Your task to perform on an android device: turn on priority inbox in the gmail app Image 0: 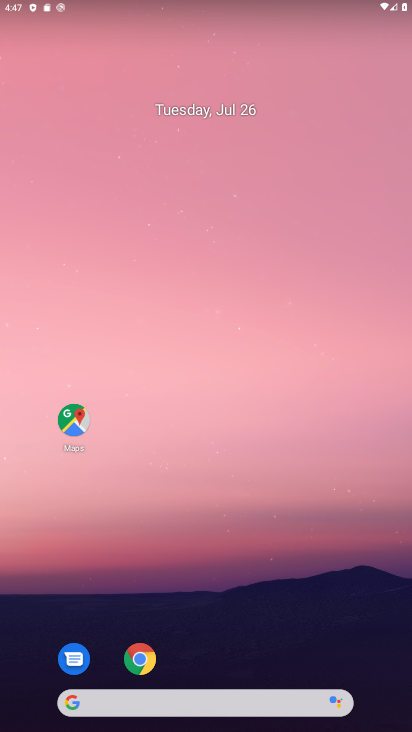
Step 0: drag from (318, 551) to (393, 19)
Your task to perform on an android device: turn on priority inbox in the gmail app Image 1: 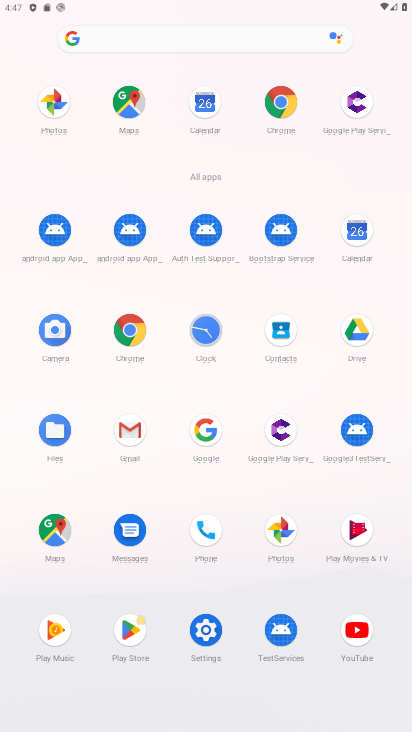
Step 1: click (121, 431)
Your task to perform on an android device: turn on priority inbox in the gmail app Image 2: 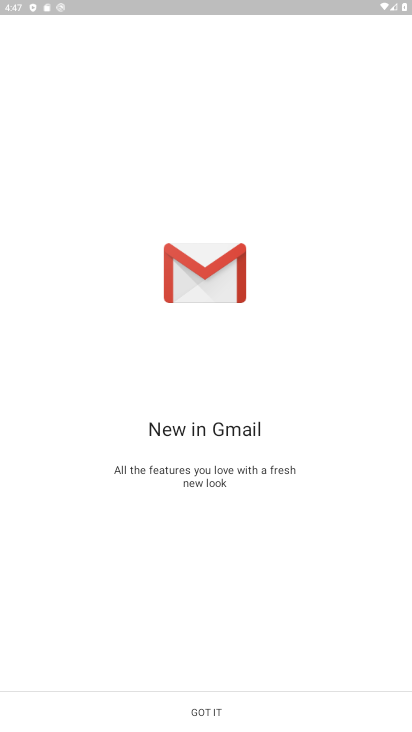
Step 2: click (212, 702)
Your task to perform on an android device: turn on priority inbox in the gmail app Image 3: 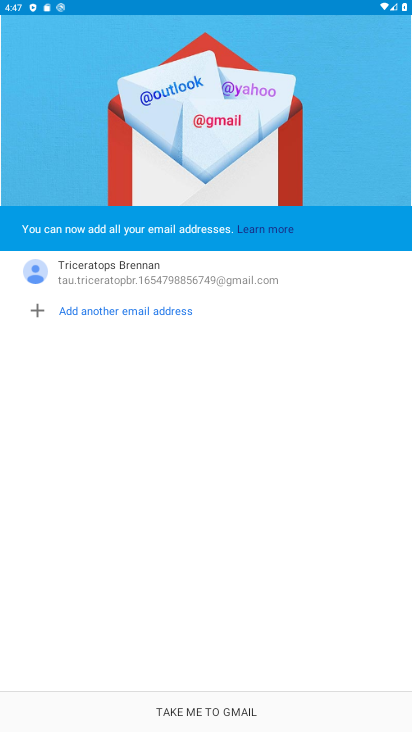
Step 3: click (188, 710)
Your task to perform on an android device: turn on priority inbox in the gmail app Image 4: 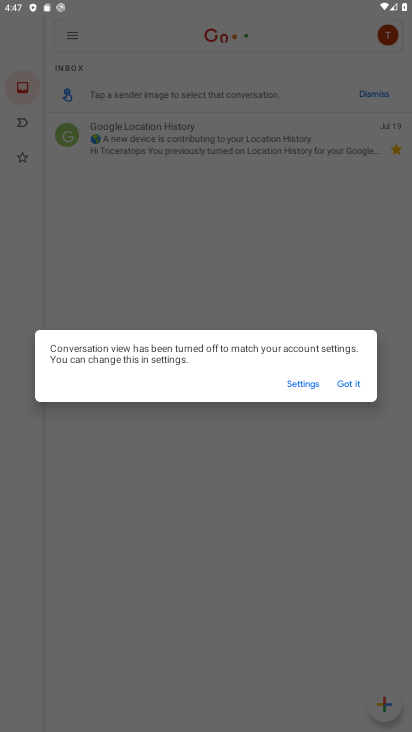
Step 4: click (358, 381)
Your task to perform on an android device: turn on priority inbox in the gmail app Image 5: 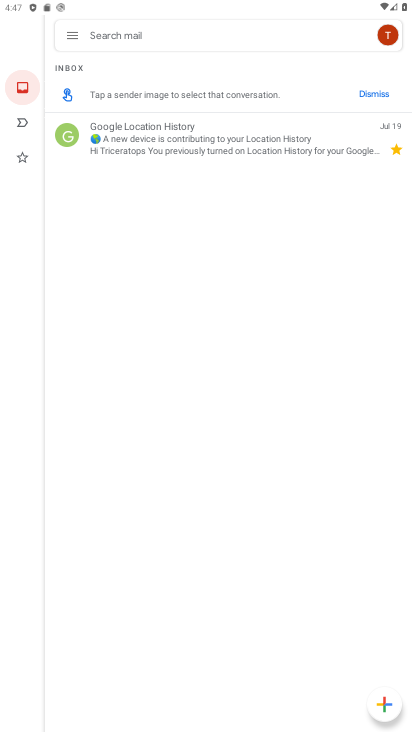
Step 5: click (76, 36)
Your task to perform on an android device: turn on priority inbox in the gmail app Image 6: 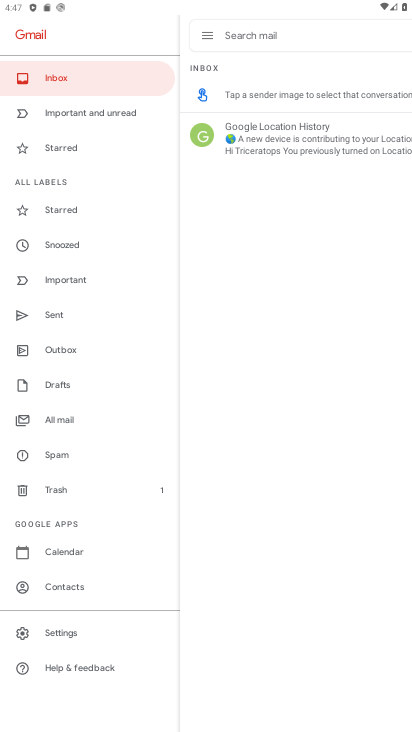
Step 6: click (67, 621)
Your task to perform on an android device: turn on priority inbox in the gmail app Image 7: 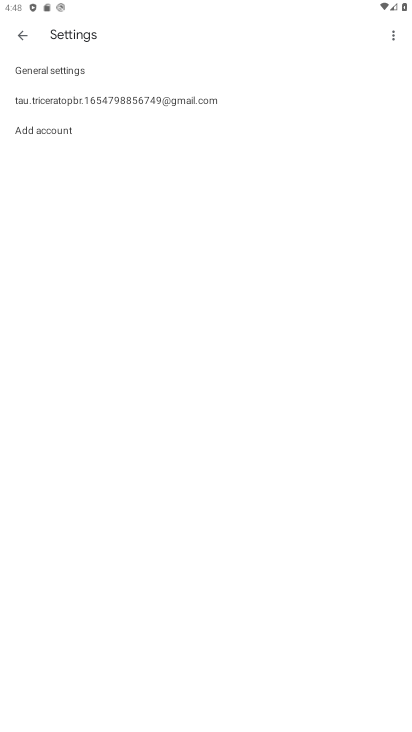
Step 7: click (83, 104)
Your task to perform on an android device: turn on priority inbox in the gmail app Image 8: 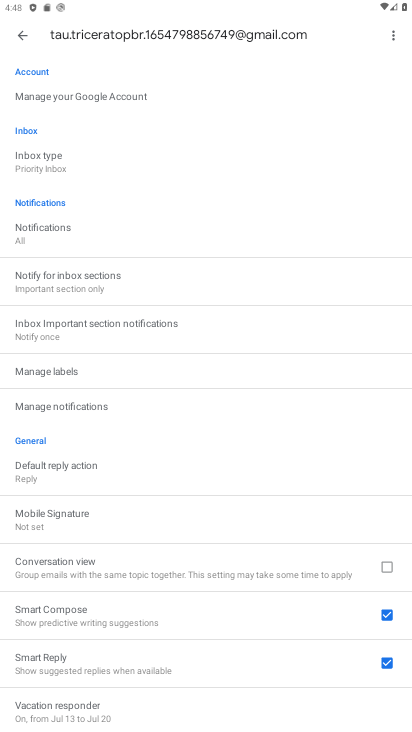
Step 8: drag from (98, 662) to (110, 328)
Your task to perform on an android device: turn on priority inbox in the gmail app Image 9: 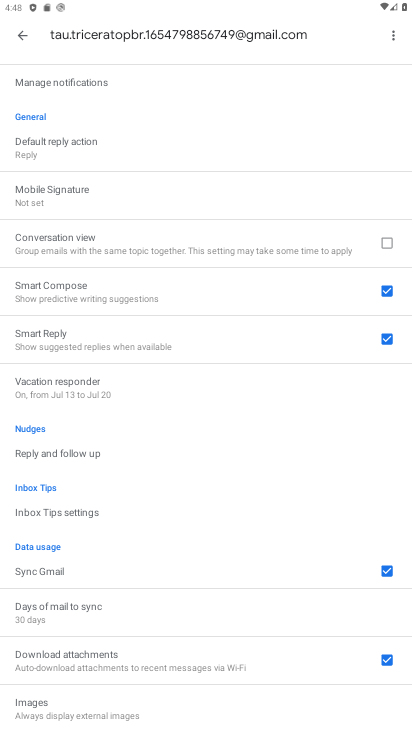
Step 9: drag from (154, 131) to (84, 661)
Your task to perform on an android device: turn on priority inbox in the gmail app Image 10: 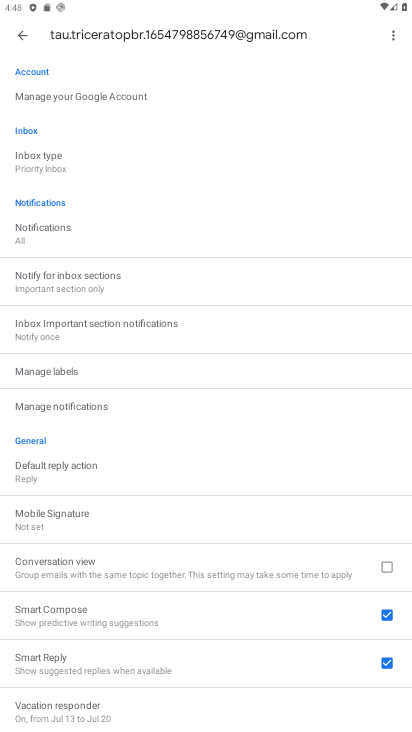
Step 10: click (46, 155)
Your task to perform on an android device: turn on priority inbox in the gmail app Image 11: 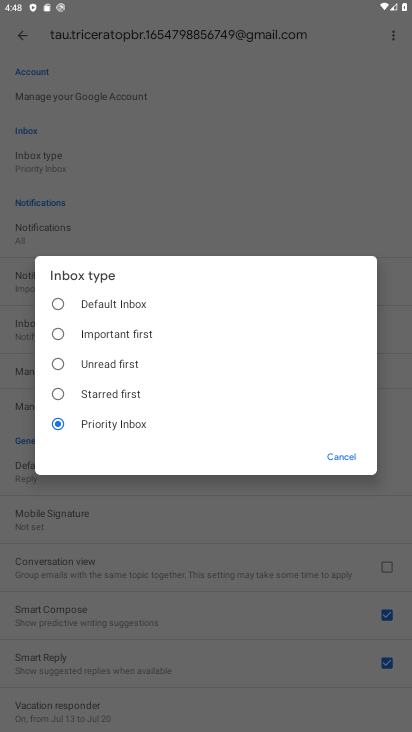
Step 11: click (107, 295)
Your task to perform on an android device: turn on priority inbox in the gmail app Image 12: 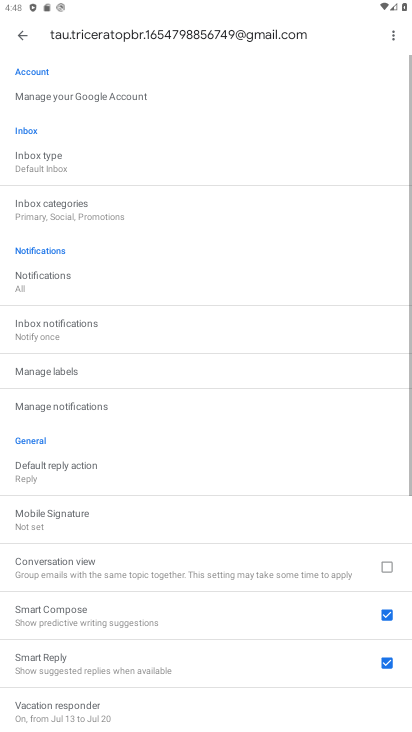
Step 12: click (21, 156)
Your task to perform on an android device: turn on priority inbox in the gmail app Image 13: 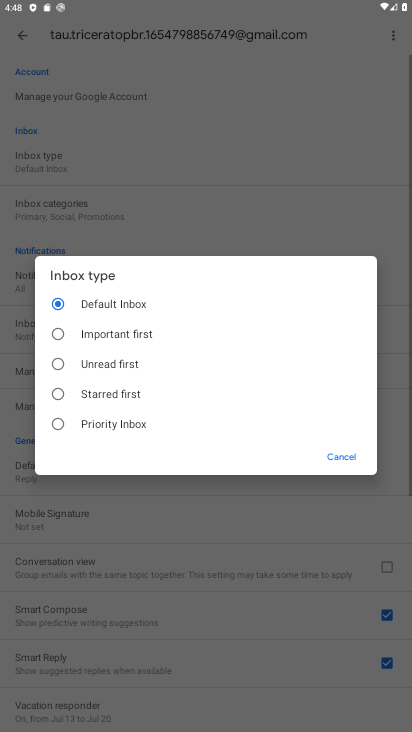
Step 13: click (97, 420)
Your task to perform on an android device: turn on priority inbox in the gmail app Image 14: 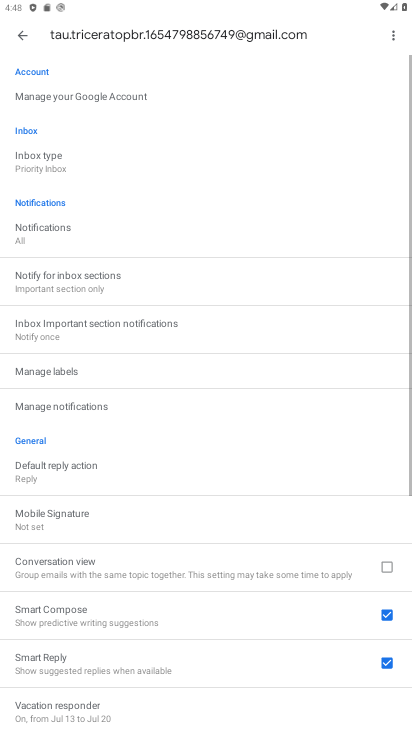
Step 14: task complete